Your task to perform on an android device: read, delete, or share a saved page in the chrome app Image 0: 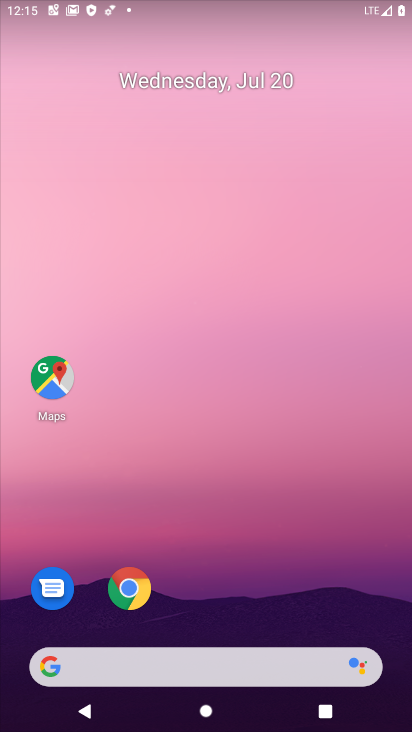
Step 0: click (134, 591)
Your task to perform on an android device: read, delete, or share a saved page in the chrome app Image 1: 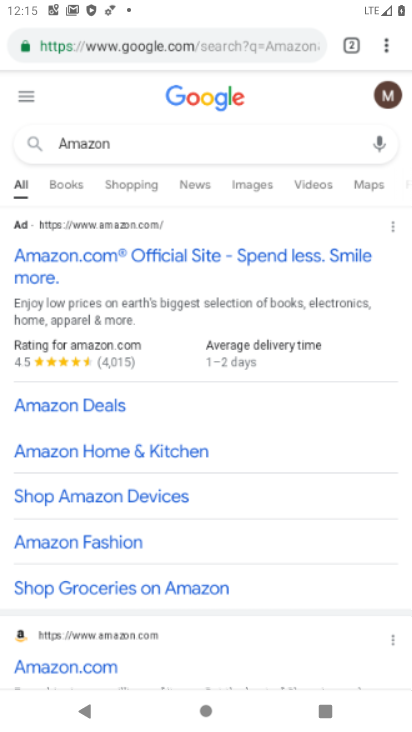
Step 1: click (387, 42)
Your task to perform on an android device: read, delete, or share a saved page in the chrome app Image 2: 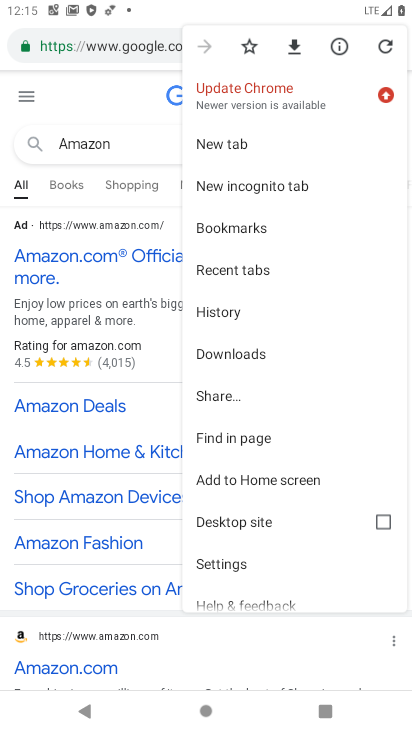
Step 2: click (221, 357)
Your task to perform on an android device: read, delete, or share a saved page in the chrome app Image 3: 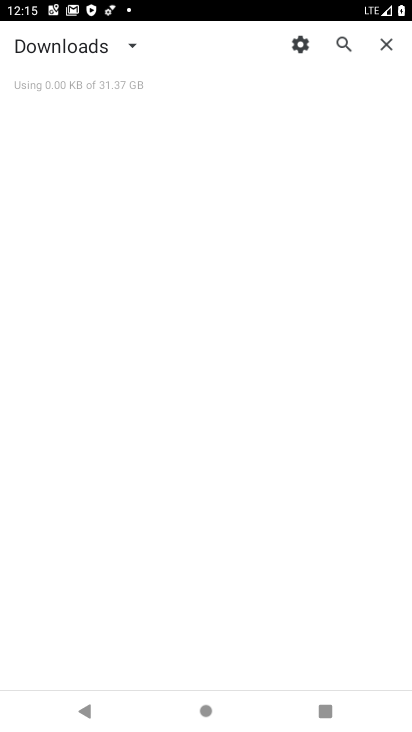
Step 3: task complete